Your task to perform on an android device: Search for a new perfume Image 0: 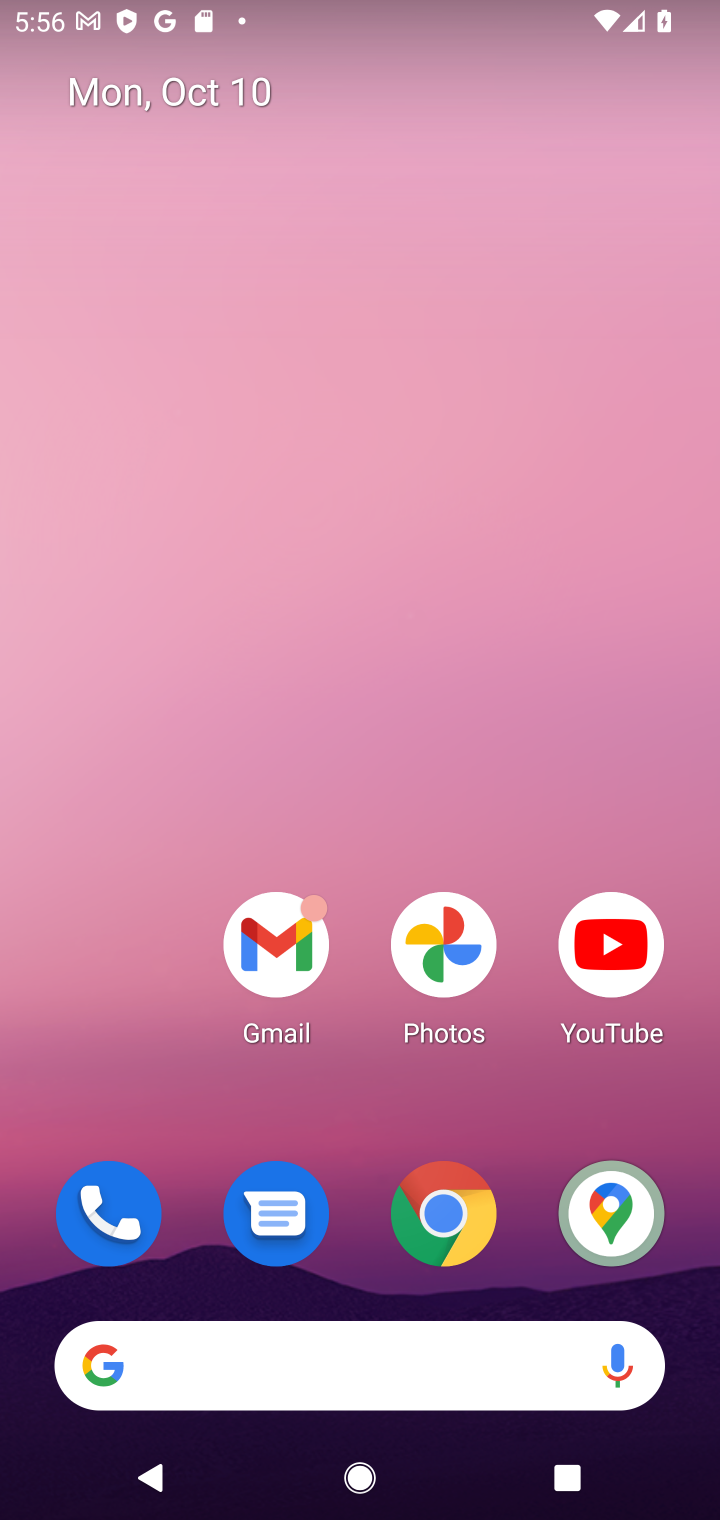
Step 0: click (359, 1356)
Your task to perform on an android device: Search for a new perfume Image 1: 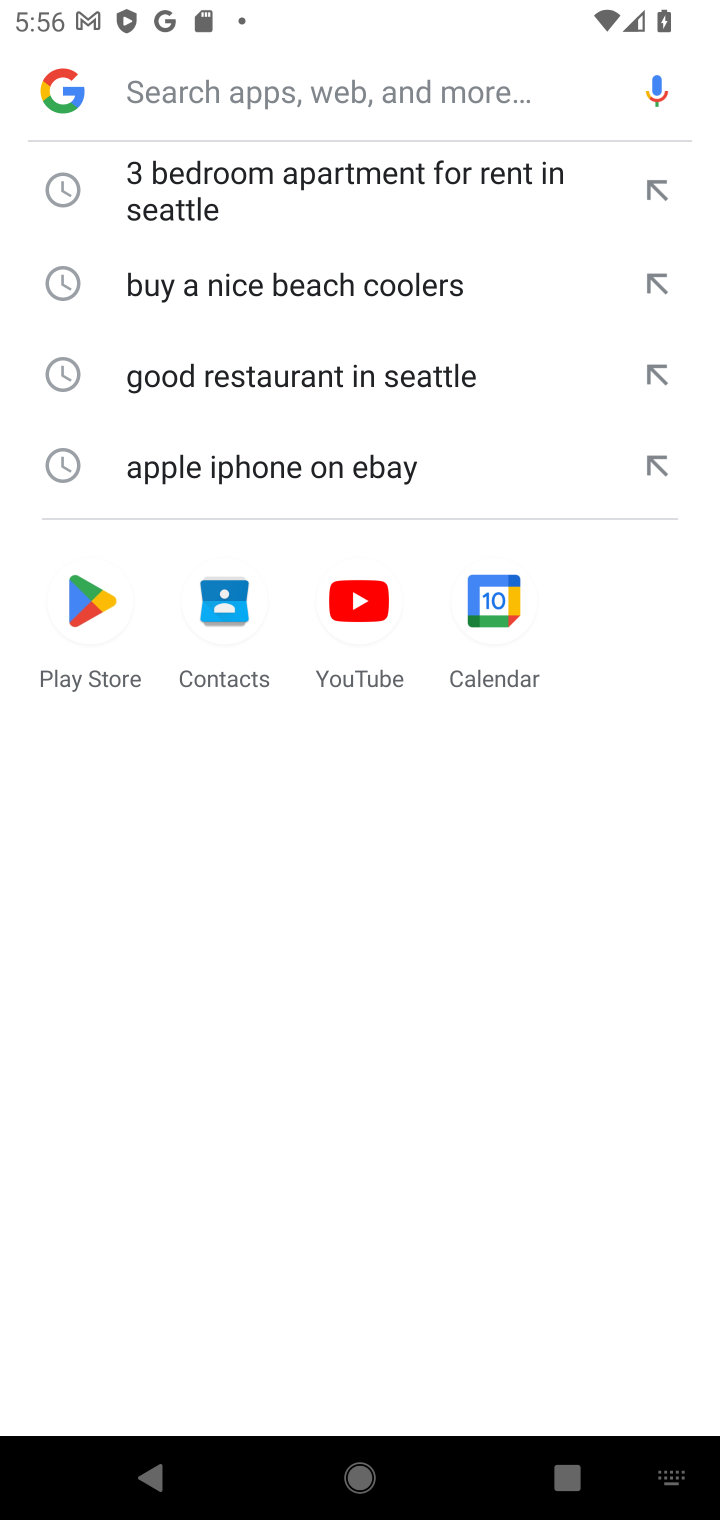
Step 1: type "new perfume"
Your task to perform on an android device: Search for a new perfume Image 2: 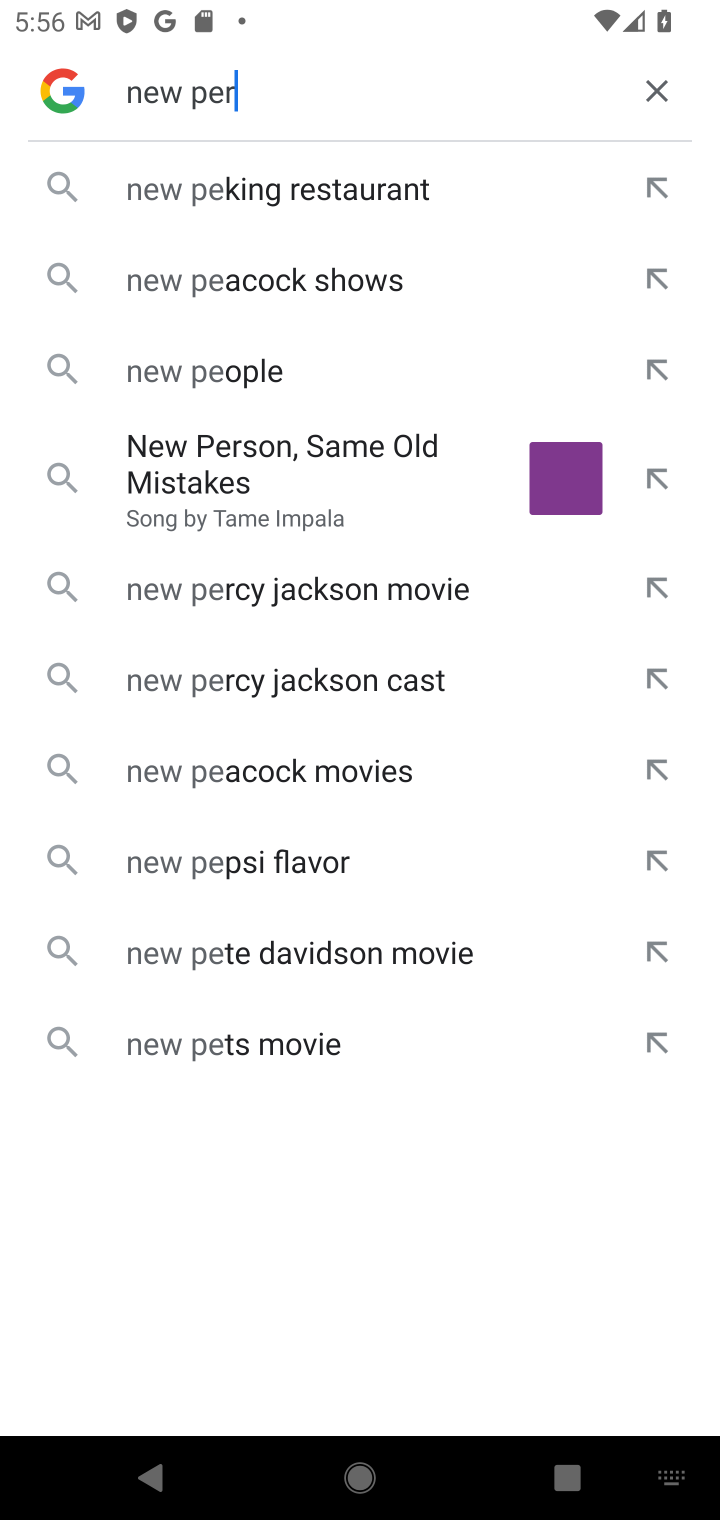
Step 2: type ""
Your task to perform on an android device: Search for a new perfume Image 3: 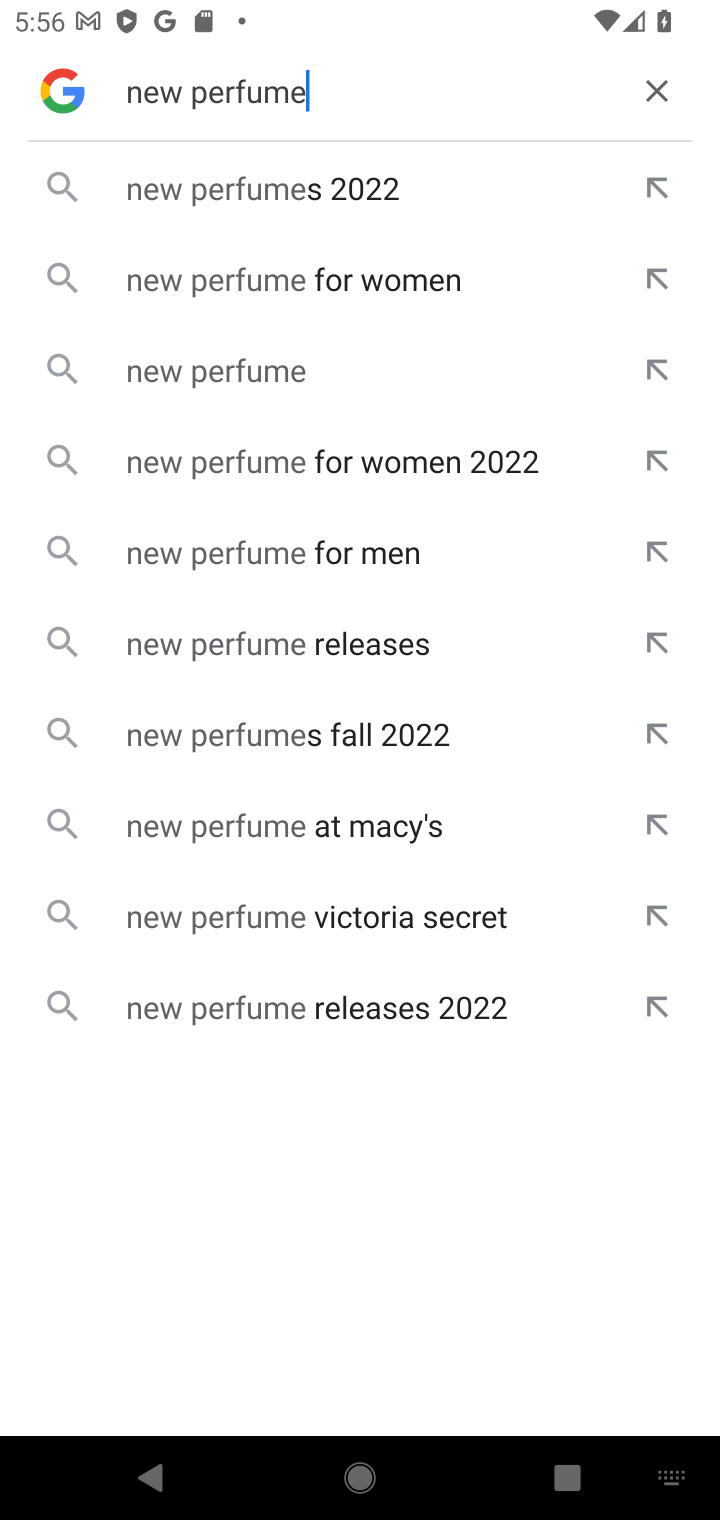
Step 3: click (214, 196)
Your task to perform on an android device: Search for a new perfume Image 4: 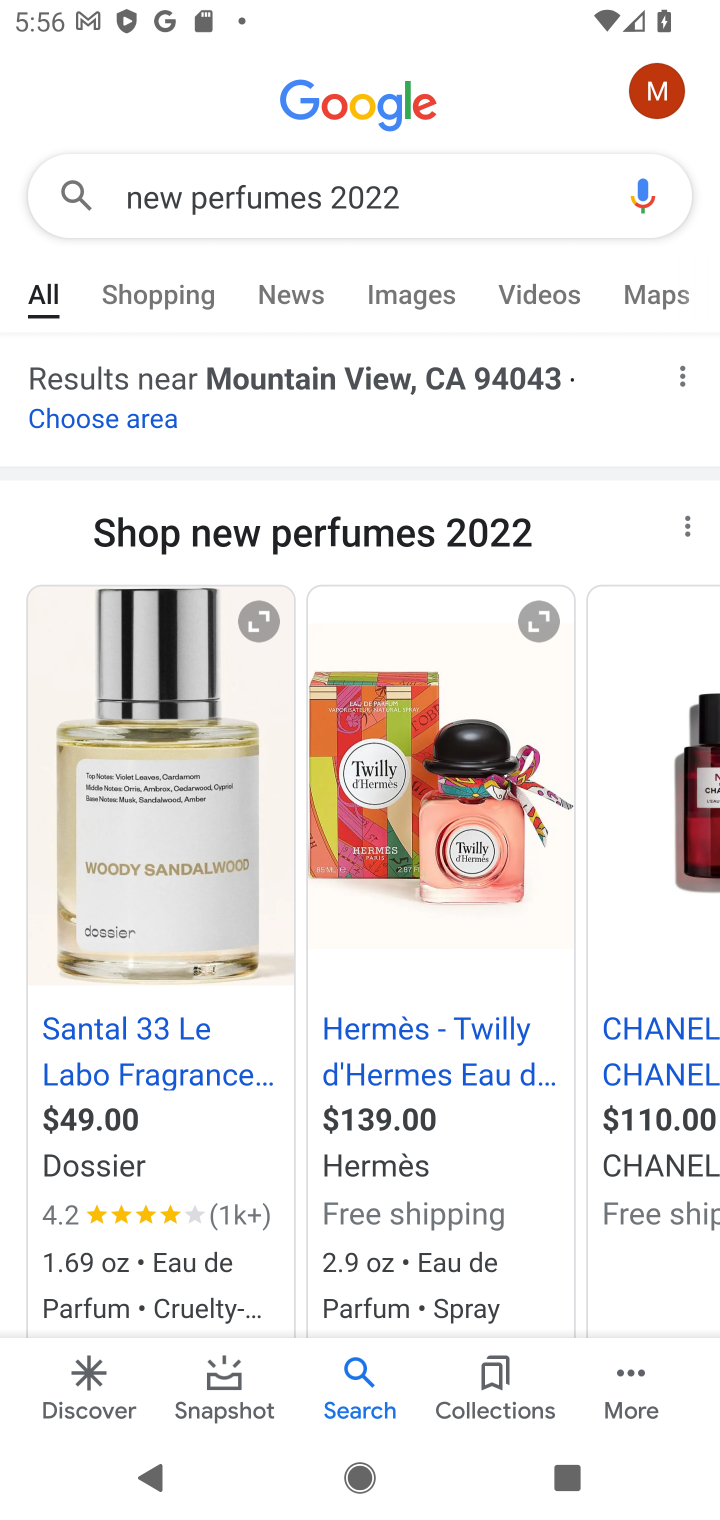
Step 4: task complete